Your task to perform on an android device: clear history in the chrome app Image 0: 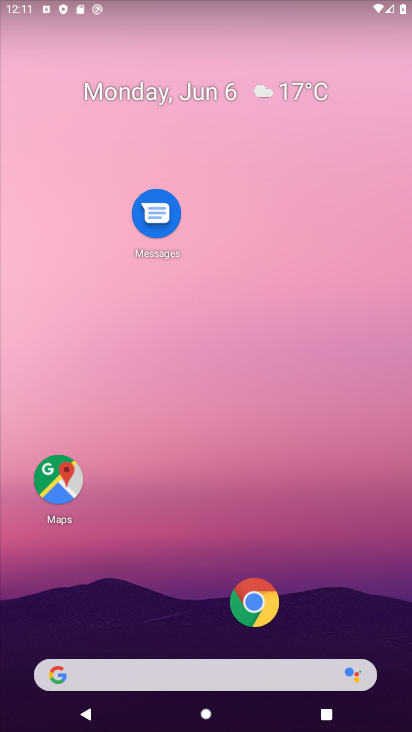
Step 0: click (275, 600)
Your task to perform on an android device: clear history in the chrome app Image 1: 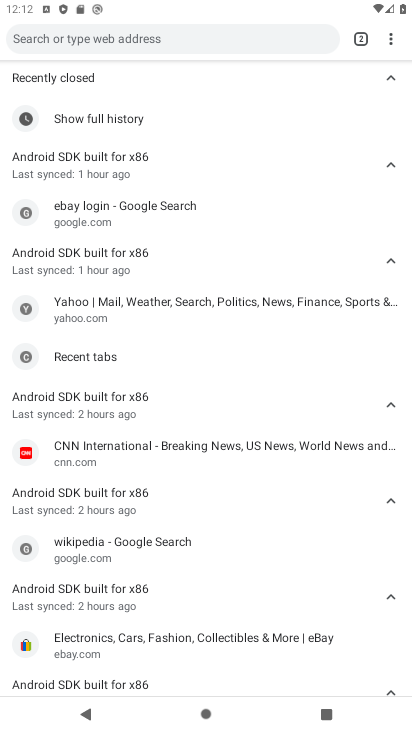
Step 1: click (394, 40)
Your task to perform on an android device: clear history in the chrome app Image 2: 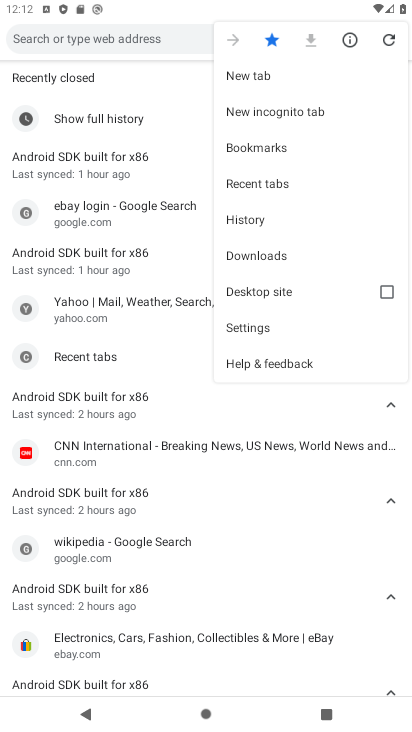
Step 2: click (271, 223)
Your task to perform on an android device: clear history in the chrome app Image 3: 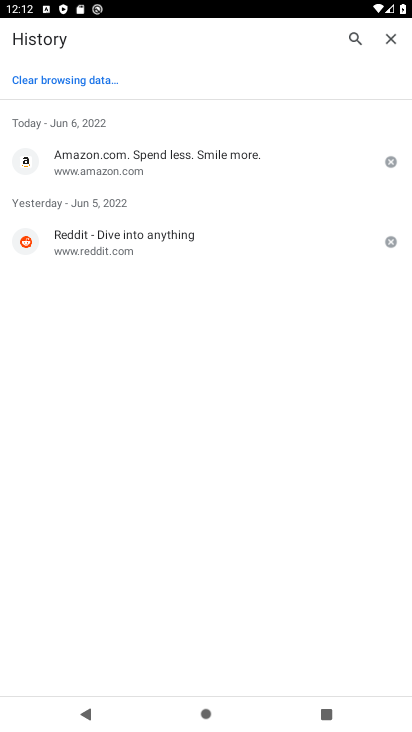
Step 3: click (89, 83)
Your task to perform on an android device: clear history in the chrome app Image 4: 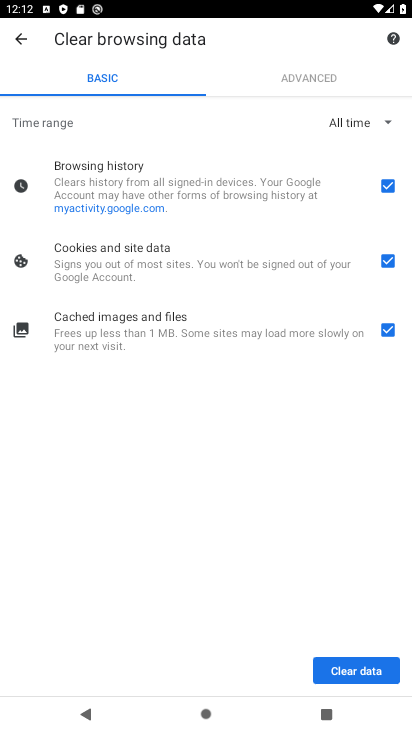
Step 4: click (352, 664)
Your task to perform on an android device: clear history in the chrome app Image 5: 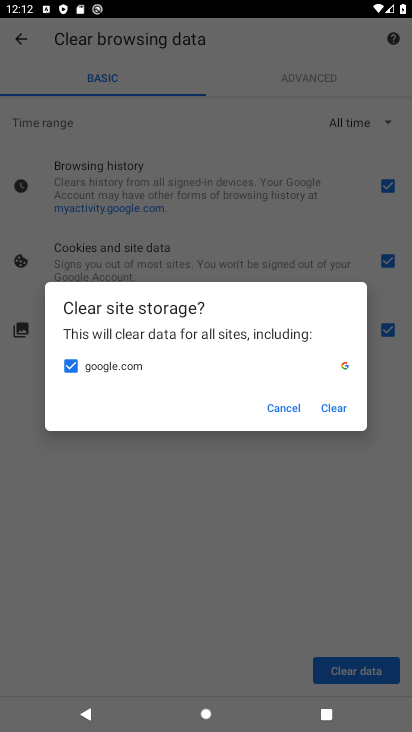
Step 5: click (338, 409)
Your task to perform on an android device: clear history in the chrome app Image 6: 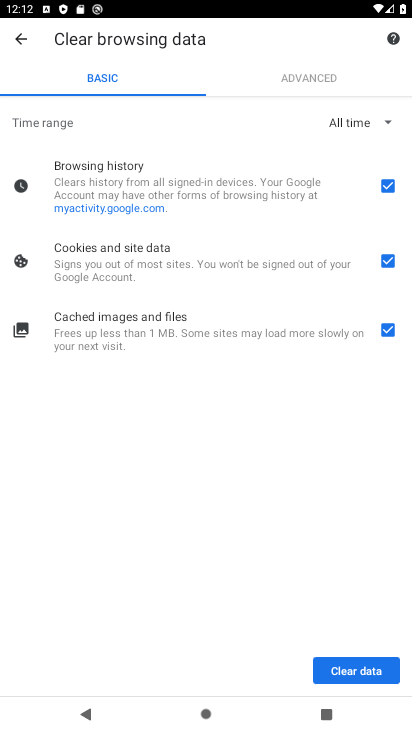
Step 6: task complete